Your task to perform on an android device: find photos in the google photos app Image 0: 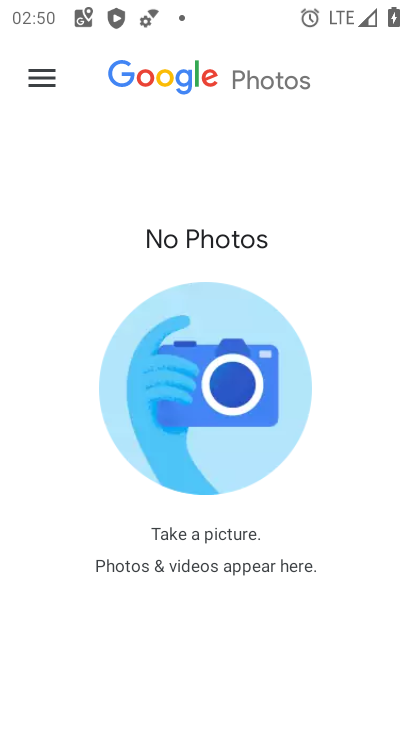
Step 0: press home button
Your task to perform on an android device: find photos in the google photos app Image 1: 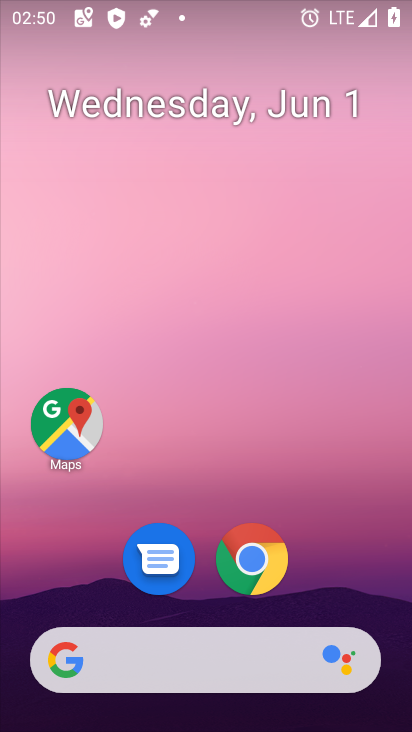
Step 1: drag from (298, 604) to (259, 165)
Your task to perform on an android device: find photos in the google photos app Image 2: 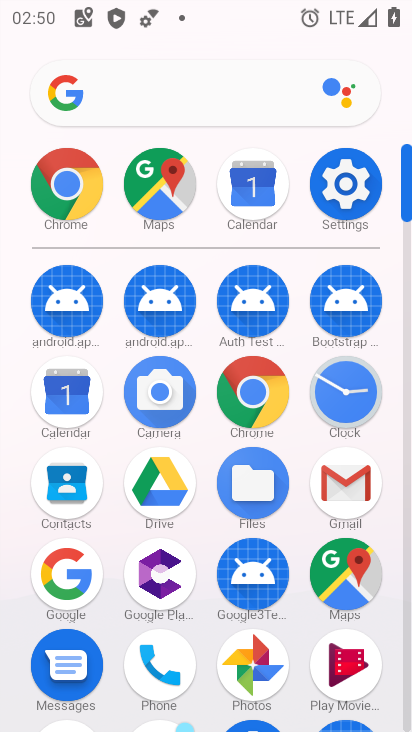
Step 2: click (251, 675)
Your task to perform on an android device: find photos in the google photos app Image 3: 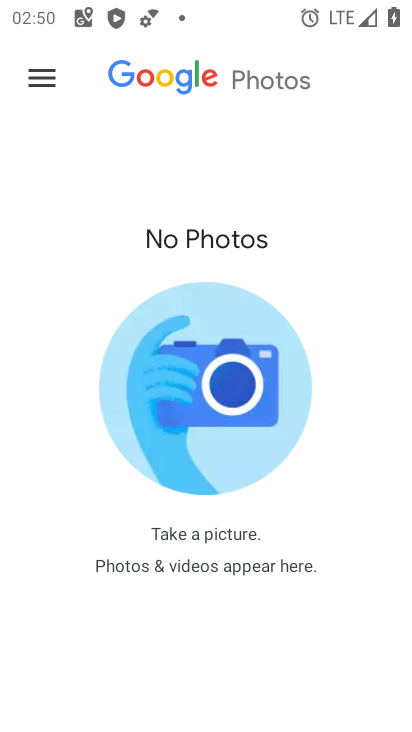
Step 3: task complete